Your task to perform on an android device: What's the weather? Image 0: 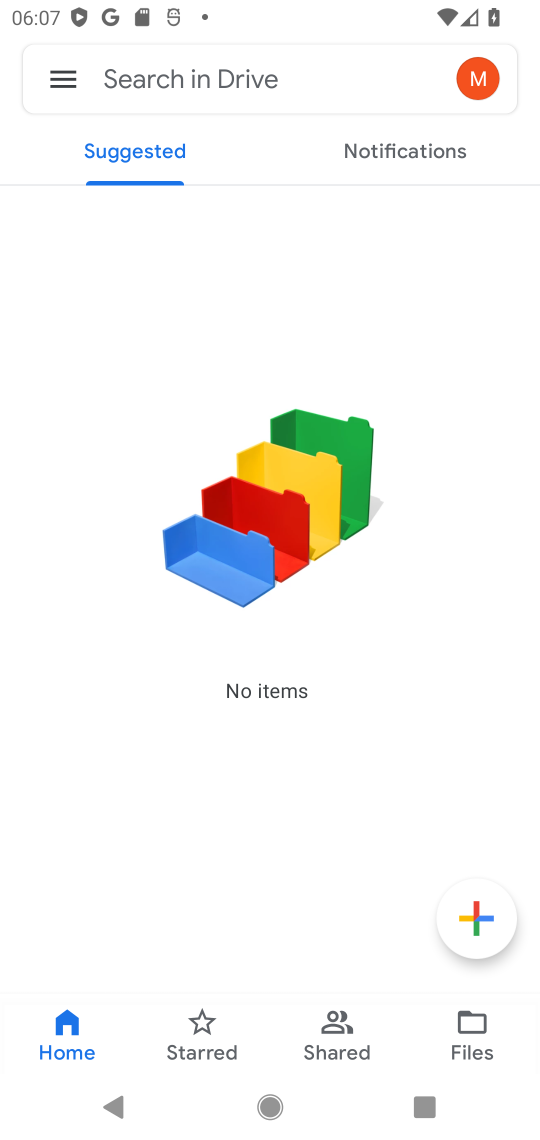
Step 0: press home button
Your task to perform on an android device: What's the weather? Image 1: 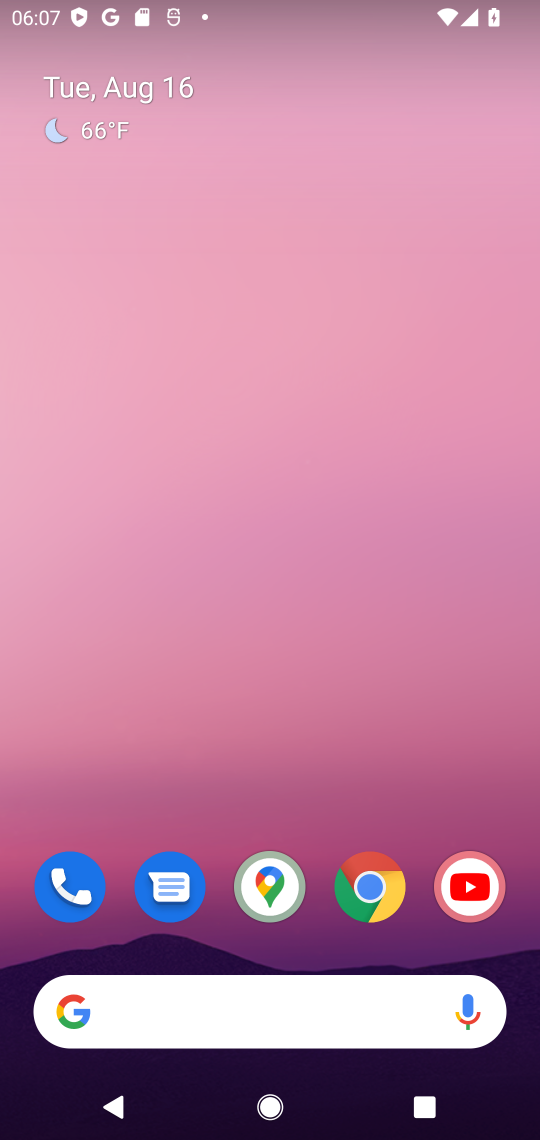
Step 1: click (100, 129)
Your task to perform on an android device: What's the weather? Image 2: 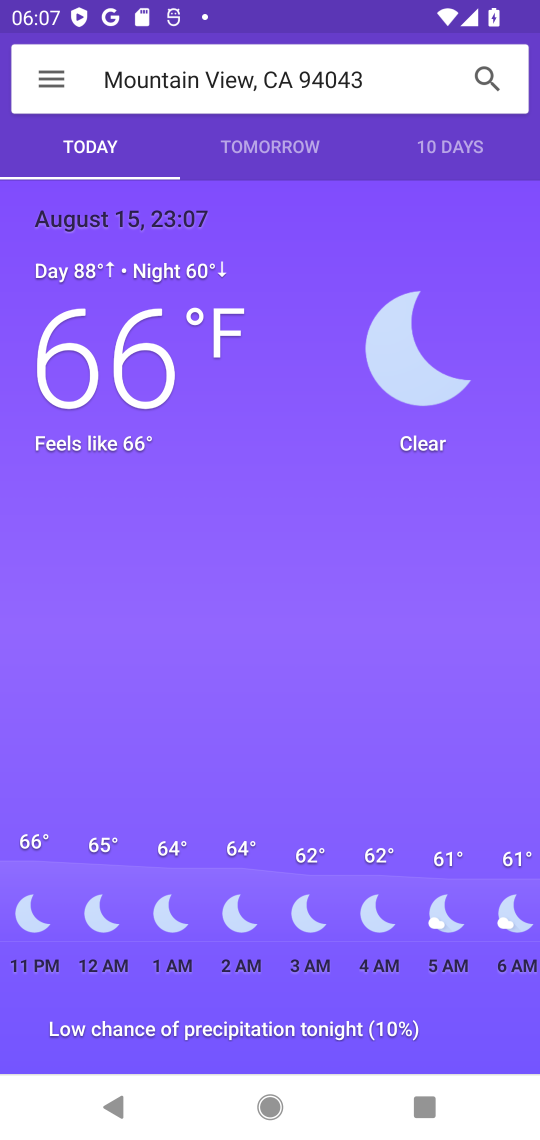
Step 2: task complete